Your task to perform on an android device: check out phone information Image 0: 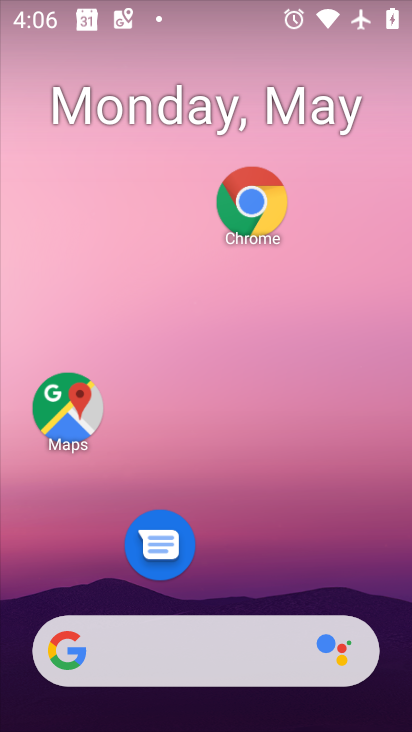
Step 0: drag from (215, 540) to (282, 89)
Your task to perform on an android device: check out phone information Image 1: 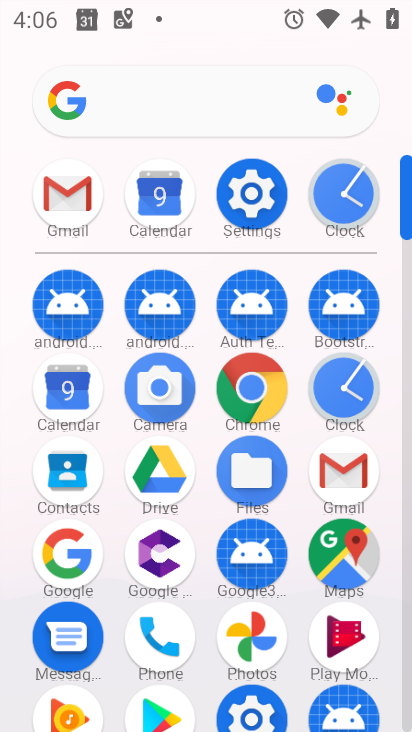
Step 1: click (234, 187)
Your task to perform on an android device: check out phone information Image 2: 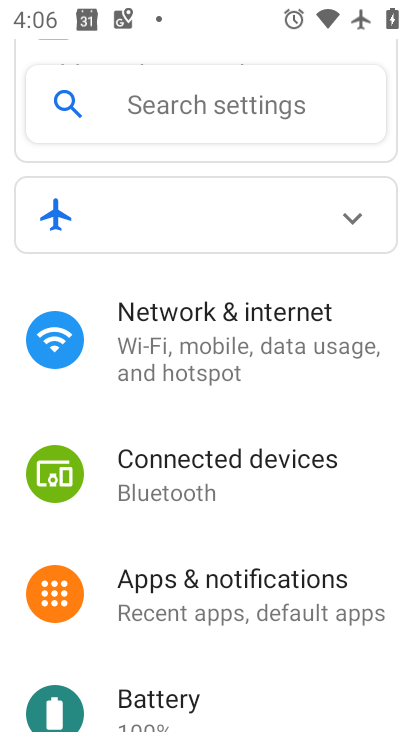
Step 2: drag from (200, 649) to (250, 286)
Your task to perform on an android device: check out phone information Image 3: 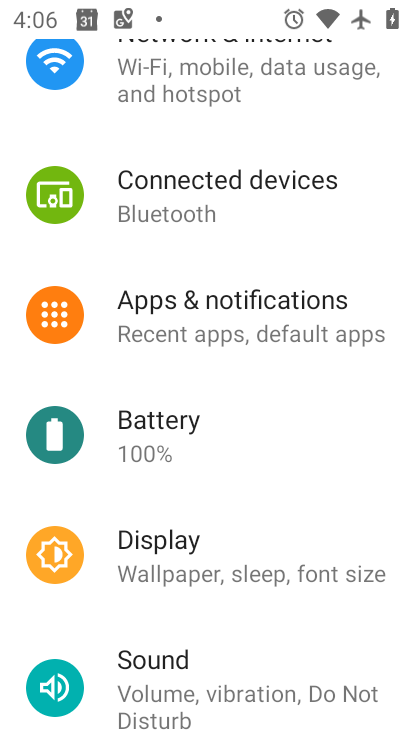
Step 3: drag from (185, 621) to (253, 306)
Your task to perform on an android device: check out phone information Image 4: 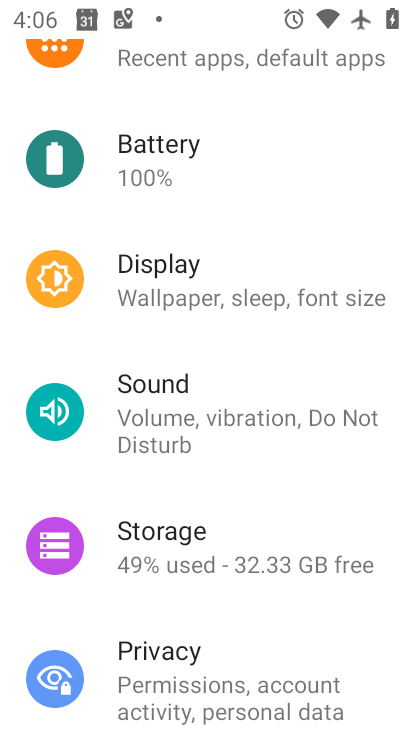
Step 4: drag from (221, 566) to (287, 244)
Your task to perform on an android device: check out phone information Image 5: 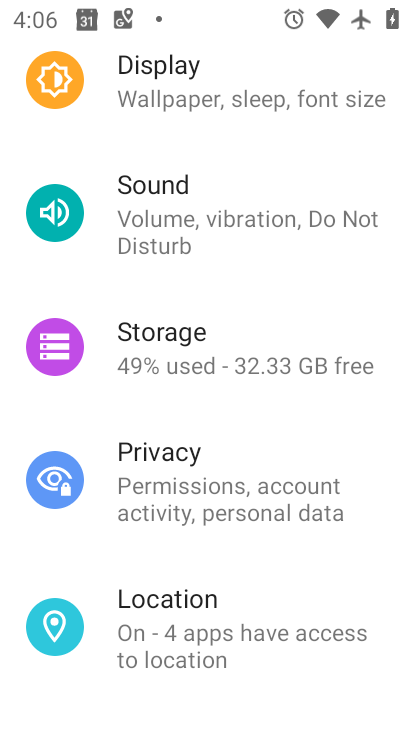
Step 5: drag from (216, 549) to (294, 236)
Your task to perform on an android device: check out phone information Image 6: 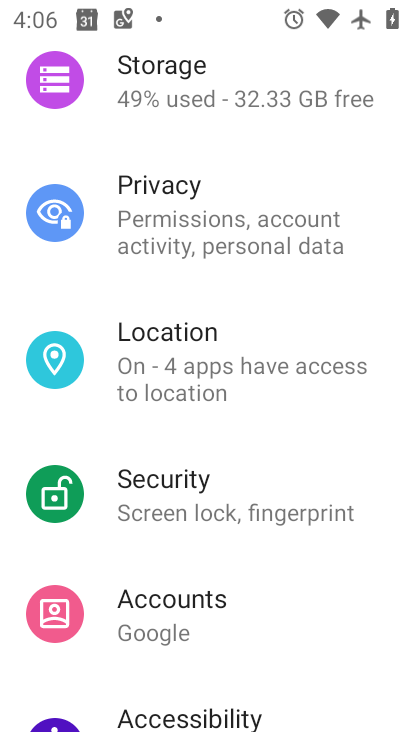
Step 6: drag from (250, 579) to (298, 340)
Your task to perform on an android device: check out phone information Image 7: 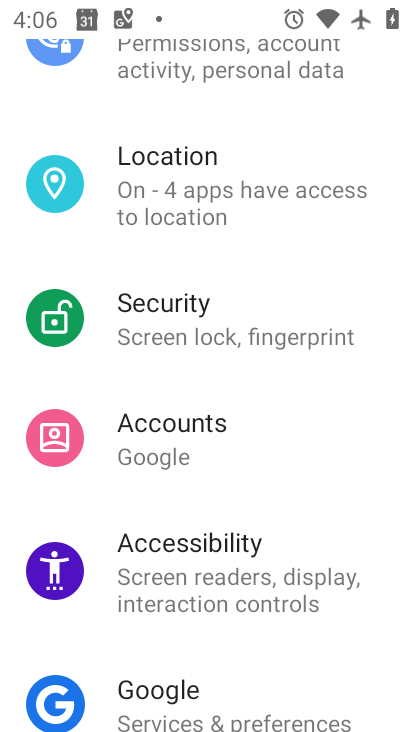
Step 7: drag from (247, 582) to (334, 280)
Your task to perform on an android device: check out phone information Image 8: 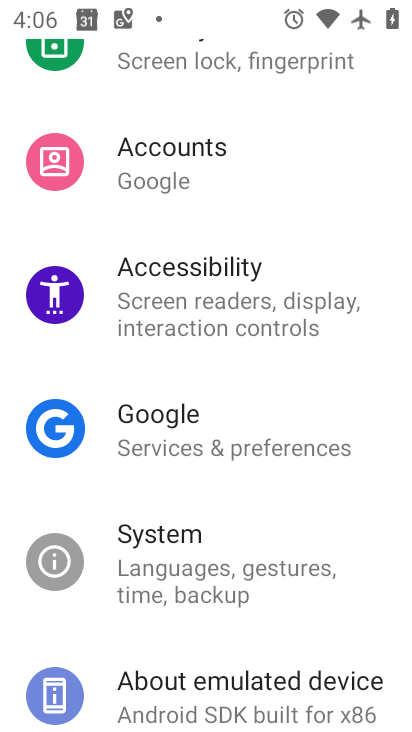
Step 8: drag from (247, 597) to (333, 317)
Your task to perform on an android device: check out phone information Image 9: 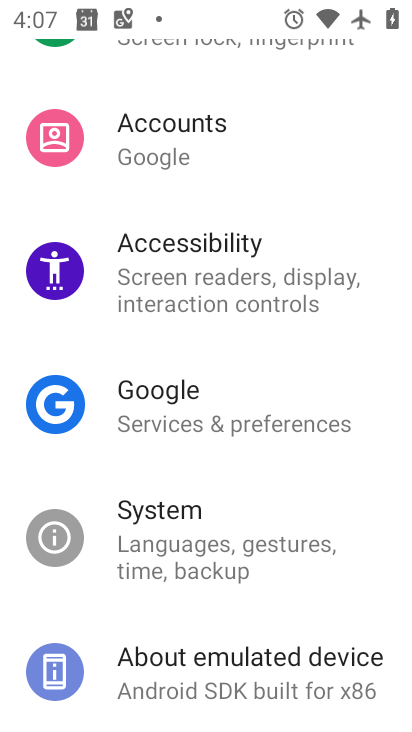
Step 9: drag from (217, 619) to (274, 393)
Your task to perform on an android device: check out phone information Image 10: 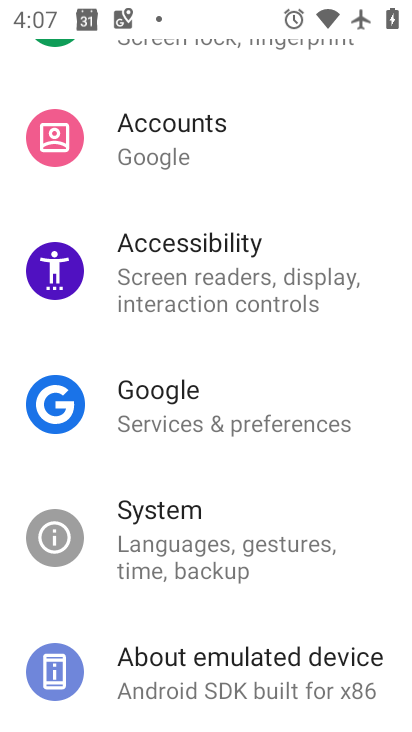
Step 10: click (199, 646)
Your task to perform on an android device: check out phone information Image 11: 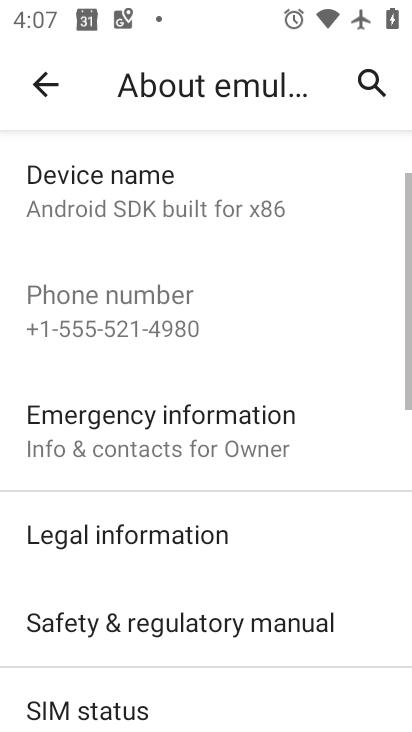
Step 11: task complete